Your task to perform on an android device: turn pop-ups on in chrome Image 0: 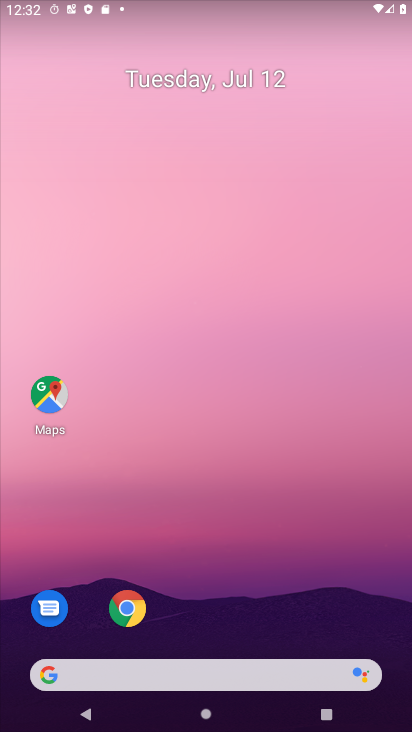
Step 0: drag from (263, 694) to (145, 68)
Your task to perform on an android device: turn pop-ups on in chrome Image 1: 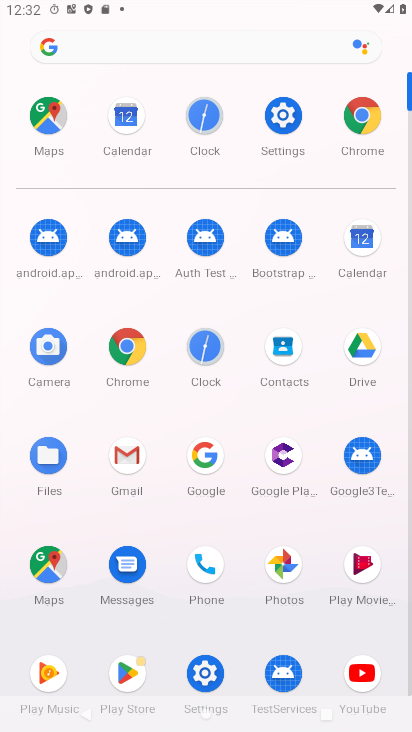
Step 1: click (361, 98)
Your task to perform on an android device: turn pop-ups on in chrome Image 2: 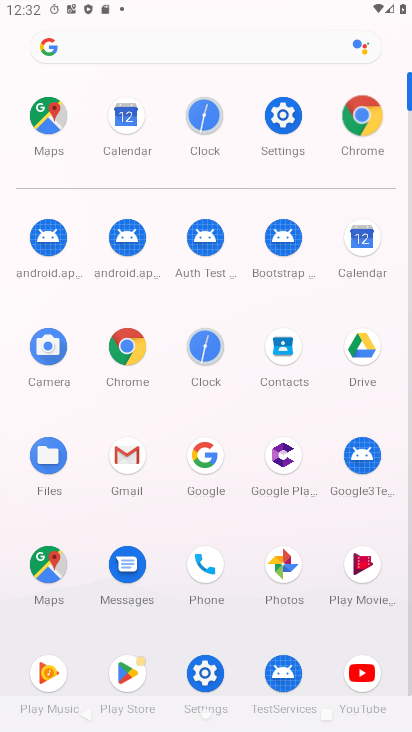
Step 2: click (362, 97)
Your task to perform on an android device: turn pop-ups on in chrome Image 3: 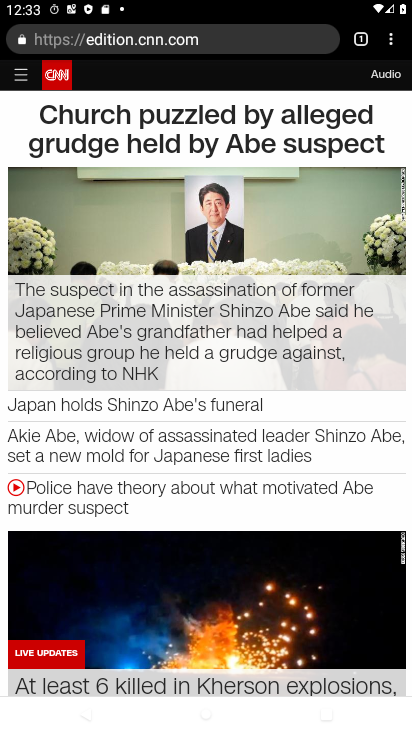
Step 3: drag from (390, 40) to (255, 443)
Your task to perform on an android device: turn pop-ups on in chrome Image 4: 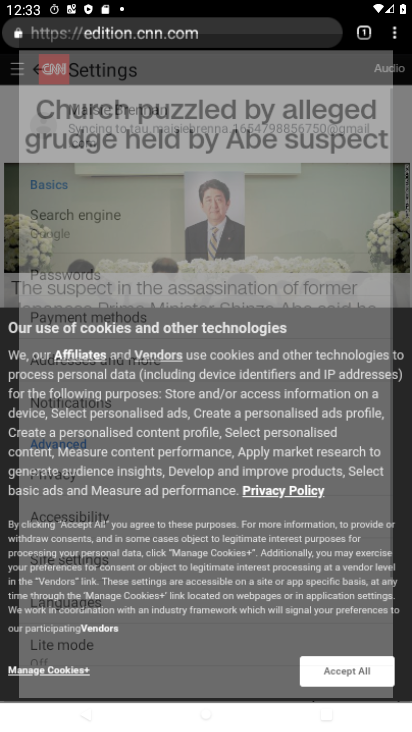
Step 4: click (259, 444)
Your task to perform on an android device: turn pop-ups on in chrome Image 5: 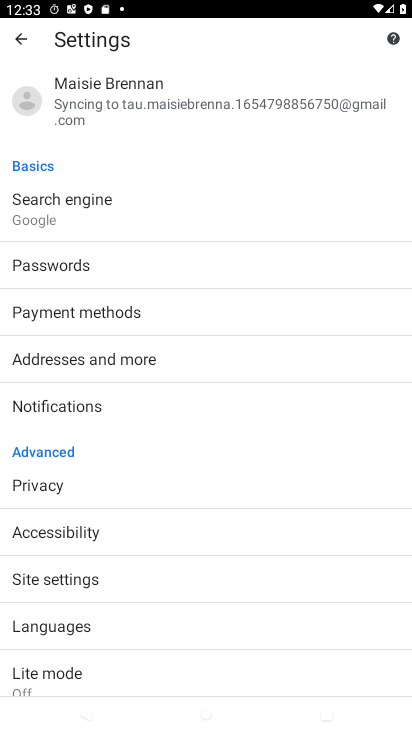
Step 5: drag from (76, 612) to (64, 258)
Your task to perform on an android device: turn pop-ups on in chrome Image 6: 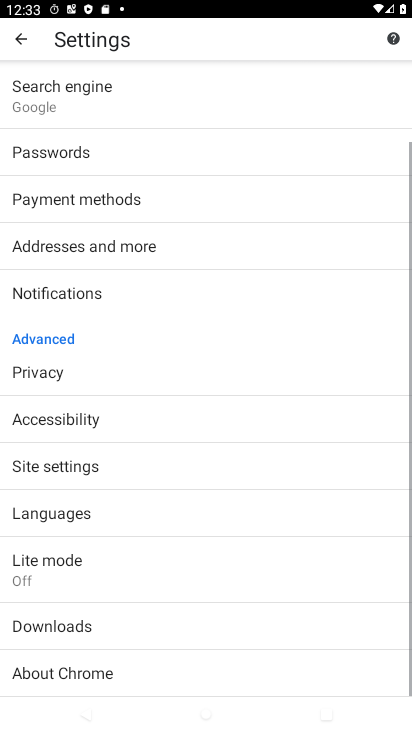
Step 6: drag from (121, 431) to (155, 167)
Your task to perform on an android device: turn pop-ups on in chrome Image 7: 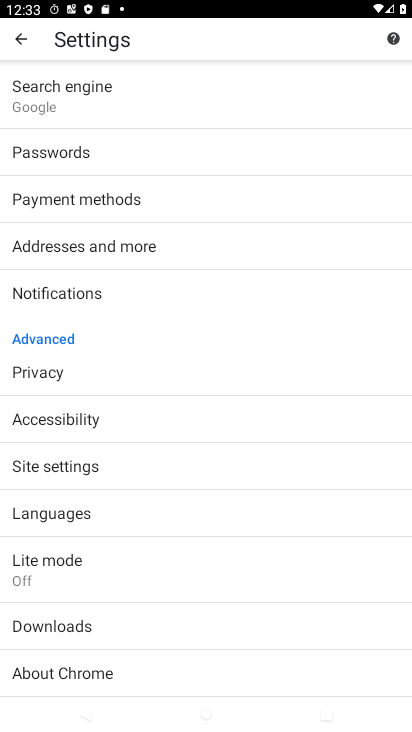
Step 7: drag from (107, 572) to (116, 307)
Your task to perform on an android device: turn pop-ups on in chrome Image 8: 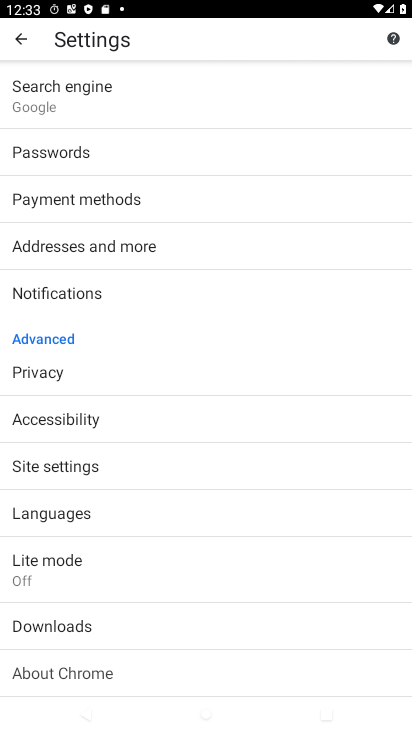
Step 8: drag from (140, 564) to (174, 232)
Your task to perform on an android device: turn pop-ups on in chrome Image 9: 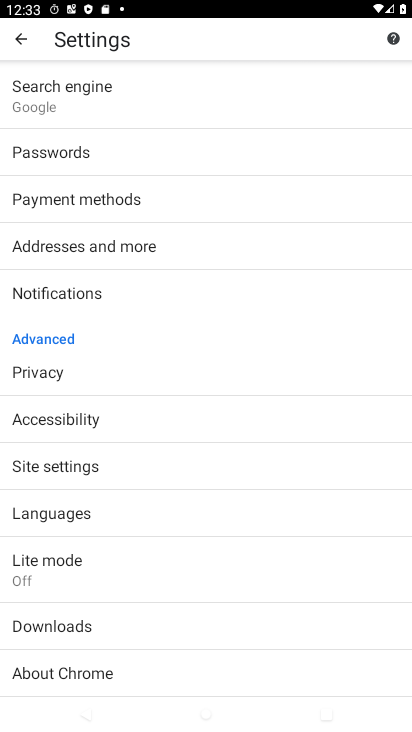
Step 9: click (52, 474)
Your task to perform on an android device: turn pop-ups on in chrome Image 10: 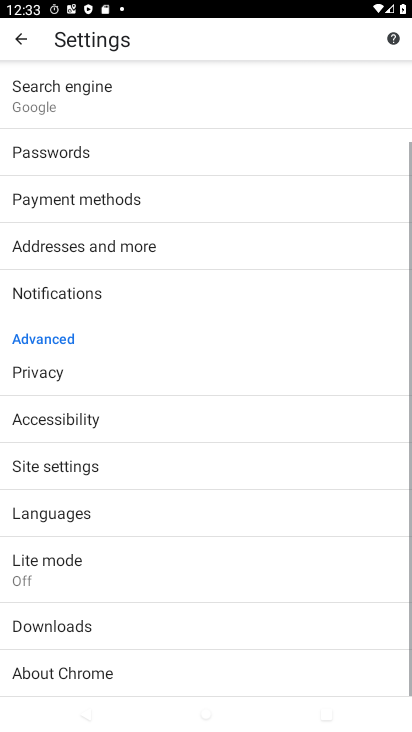
Step 10: click (51, 473)
Your task to perform on an android device: turn pop-ups on in chrome Image 11: 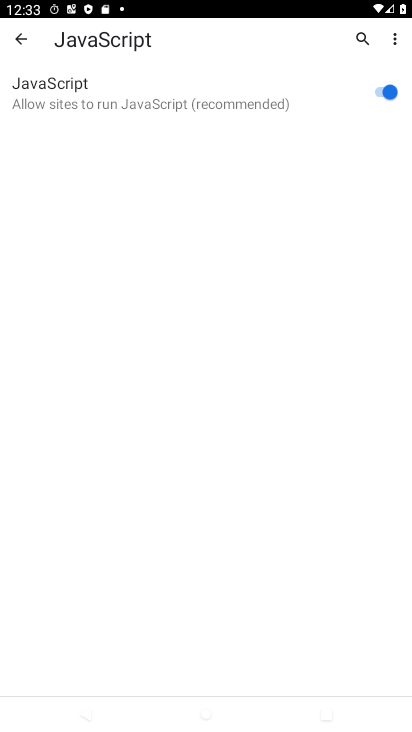
Step 11: click (26, 34)
Your task to perform on an android device: turn pop-ups on in chrome Image 12: 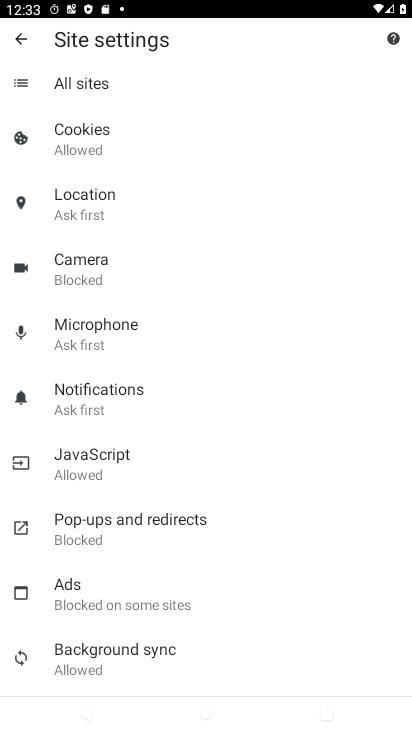
Step 12: click (97, 543)
Your task to perform on an android device: turn pop-ups on in chrome Image 13: 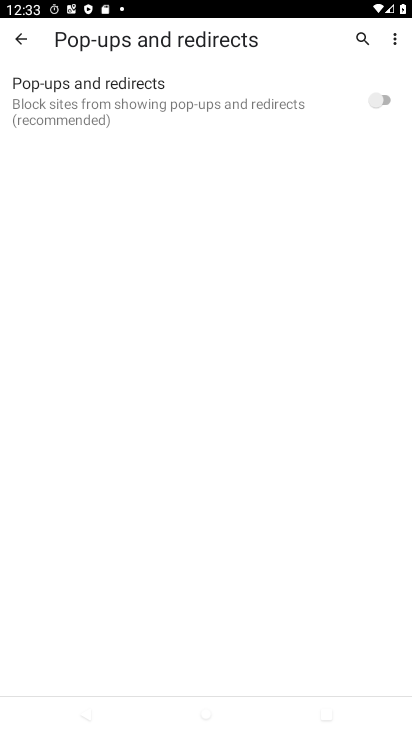
Step 13: click (372, 101)
Your task to perform on an android device: turn pop-ups on in chrome Image 14: 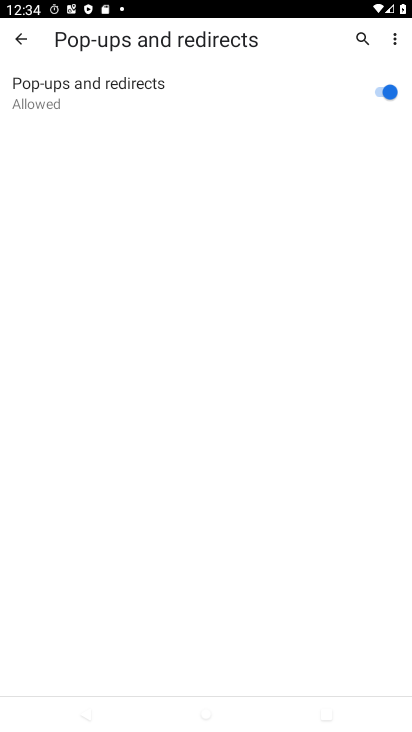
Step 14: task complete